Your task to perform on an android device: delete location history Image 0: 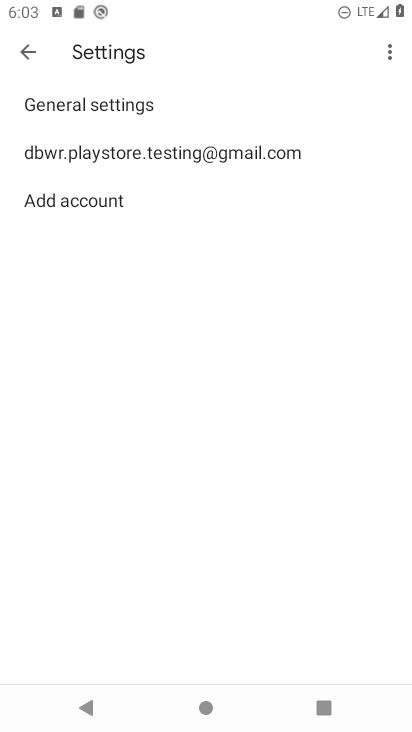
Step 0: press home button
Your task to perform on an android device: delete location history Image 1: 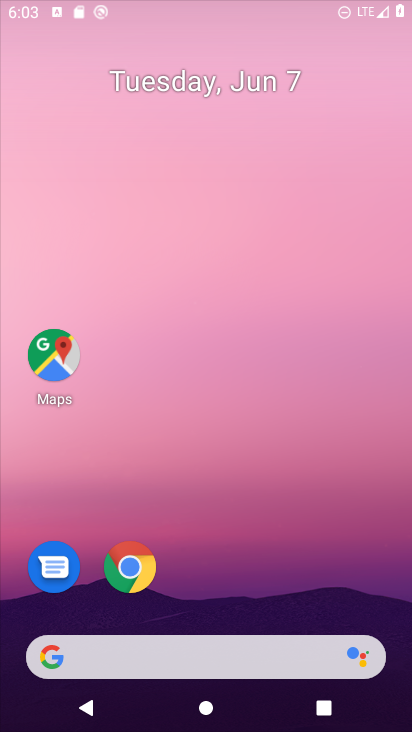
Step 1: drag from (259, 688) to (356, 11)
Your task to perform on an android device: delete location history Image 2: 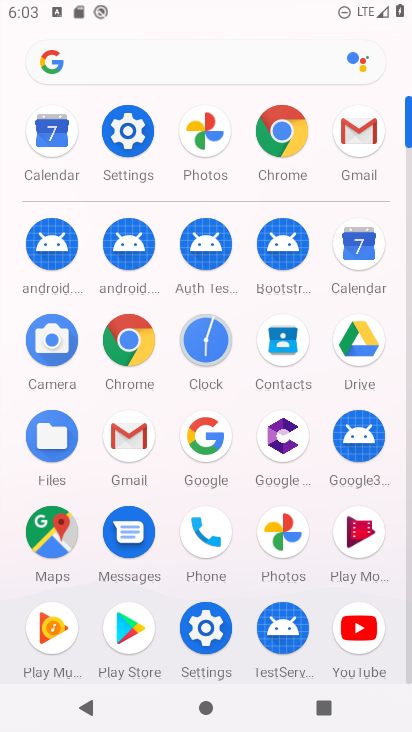
Step 2: click (57, 550)
Your task to perform on an android device: delete location history Image 3: 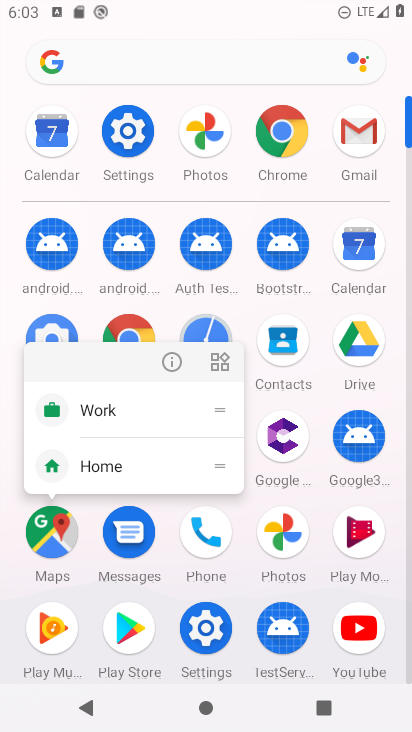
Step 3: click (52, 544)
Your task to perform on an android device: delete location history Image 4: 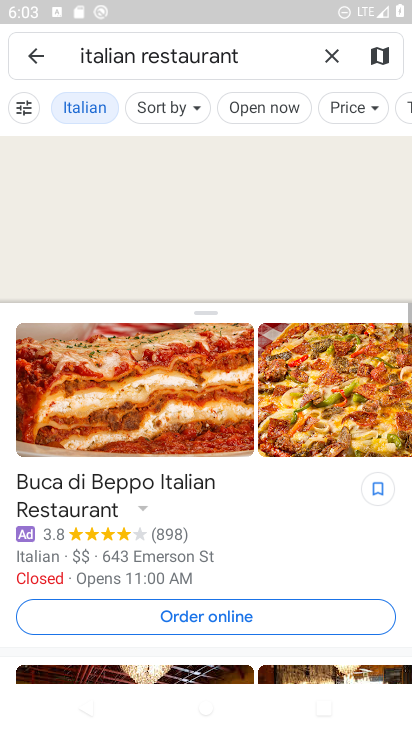
Step 4: press back button
Your task to perform on an android device: delete location history Image 5: 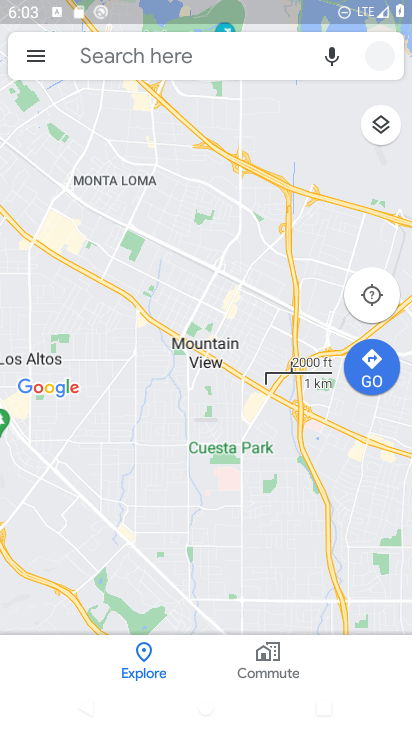
Step 5: click (44, 56)
Your task to perform on an android device: delete location history Image 6: 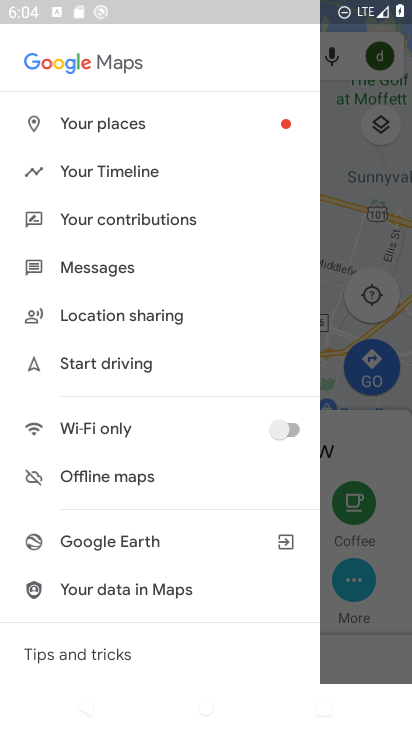
Step 6: click (99, 163)
Your task to perform on an android device: delete location history Image 7: 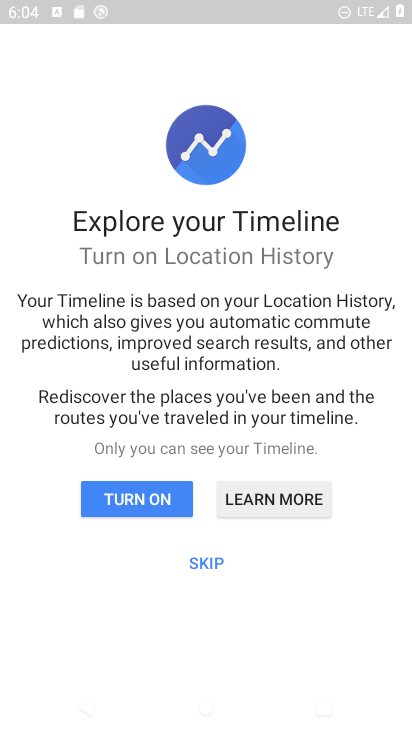
Step 7: click (211, 559)
Your task to perform on an android device: delete location history Image 8: 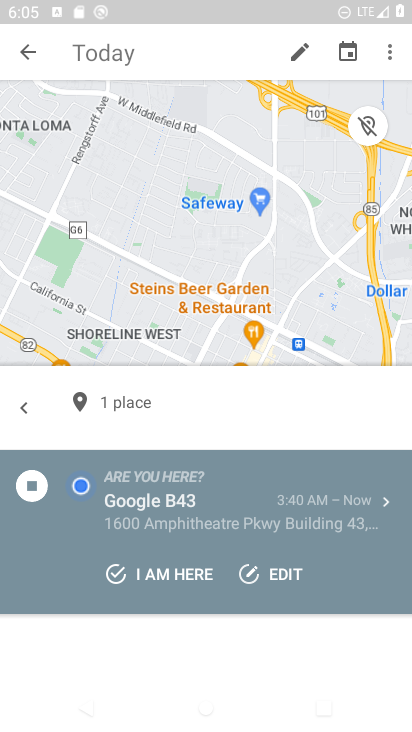
Step 8: click (390, 53)
Your task to perform on an android device: delete location history Image 9: 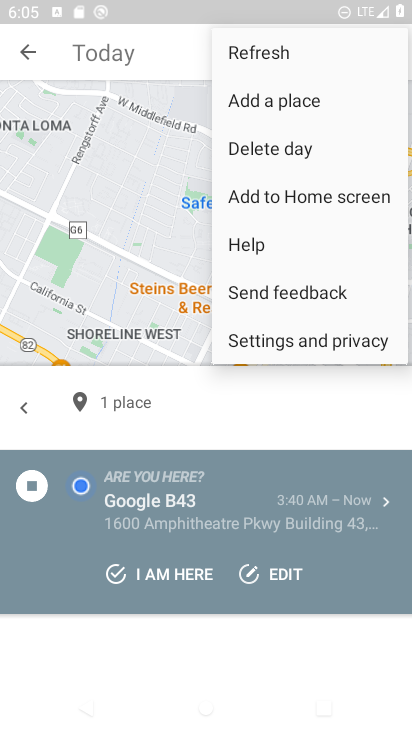
Step 9: click (303, 337)
Your task to perform on an android device: delete location history Image 10: 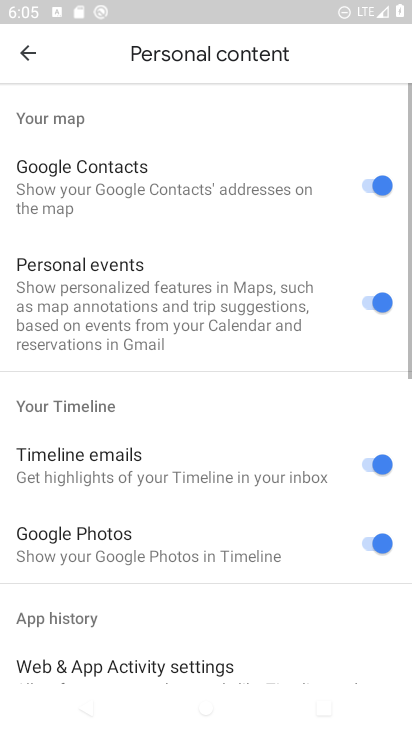
Step 10: drag from (247, 641) to (234, 137)
Your task to perform on an android device: delete location history Image 11: 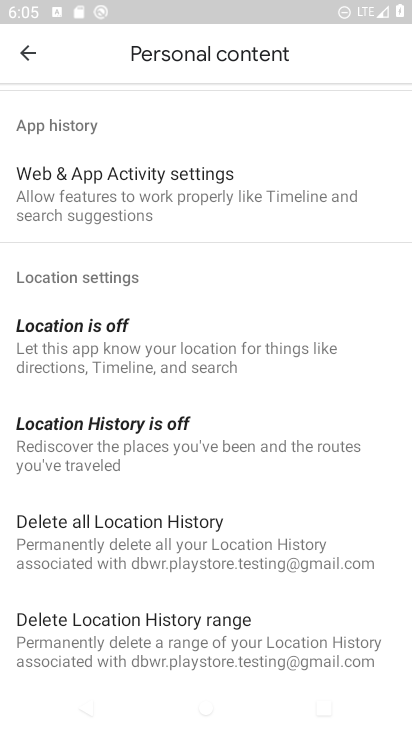
Step 11: click (193, 552)
Your task to perform on an android device: delete location history Image 12: 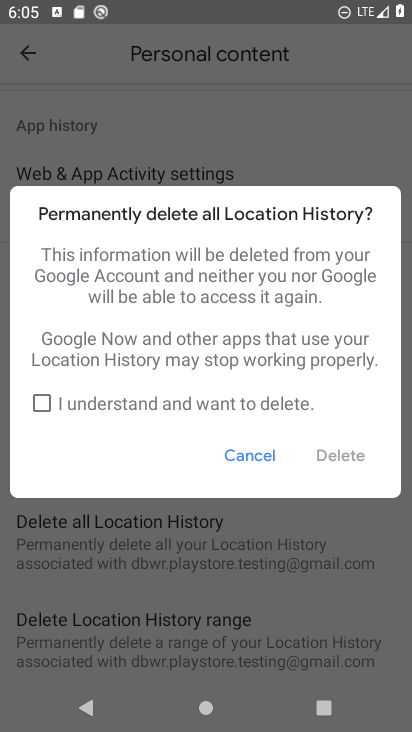
Step 12: click (34, 392)
Your task to perform on an android device: delete location history Image 13: 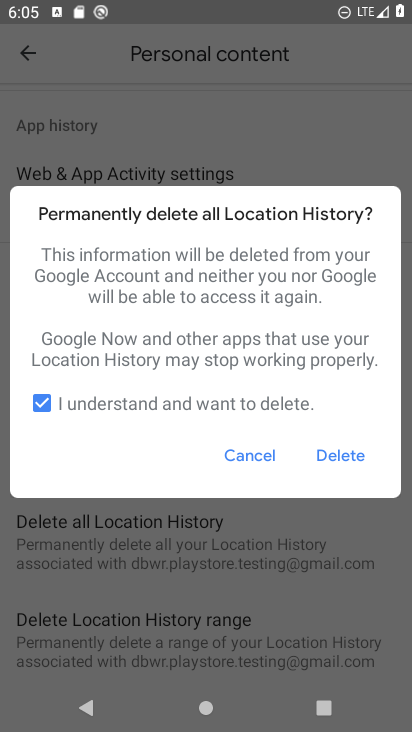
Step 13: click (377, 459)
Your task to perform on an android device: delete location history Image 14: 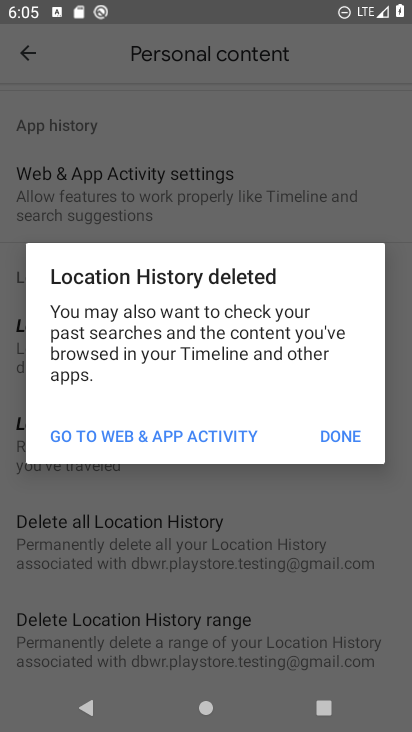
Step 14: task complete